Your task to perform on an android device: Open Youtube and go to the subscriptions tab Image 0: 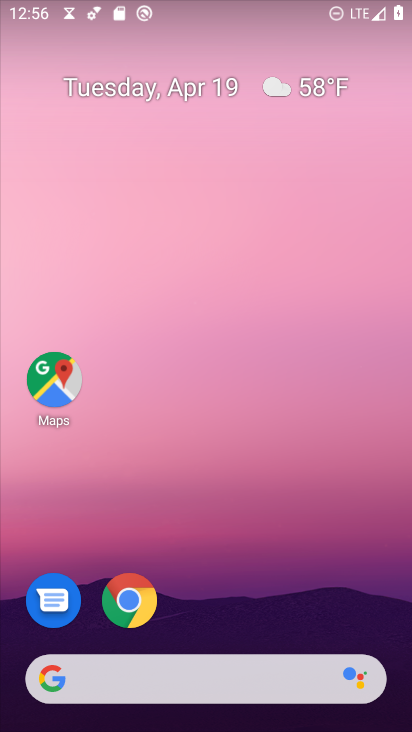
Step 0: drag from (135, 558) to (314, 1)
Your task to perform on an android device: Open Youtube and go to the subscriptions tab Image 1: 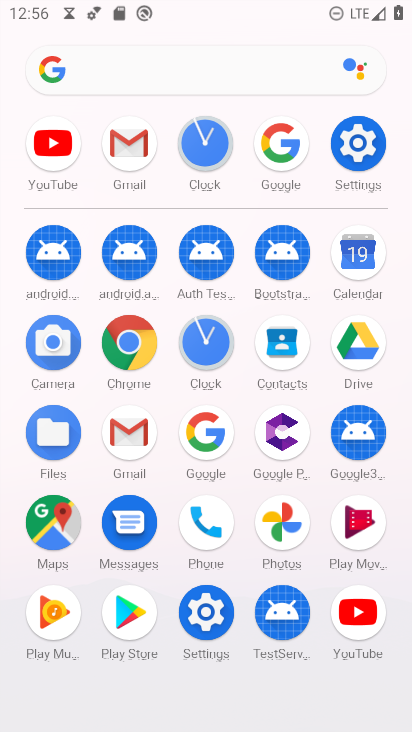
Step 1: click (59, 156)
Your task to perform on an android device: Open Youtube and go to the subscriptions tab Image 2: 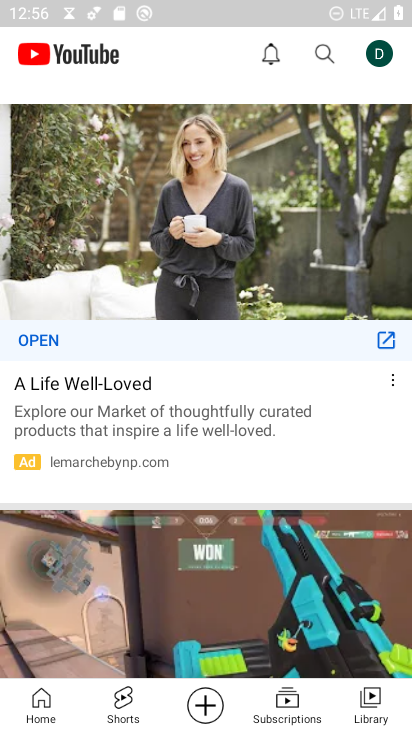
Step 2: click (282, 702)
Your task to perform on an android device: Open Youtube and go to the subscriptions tab Image 3: 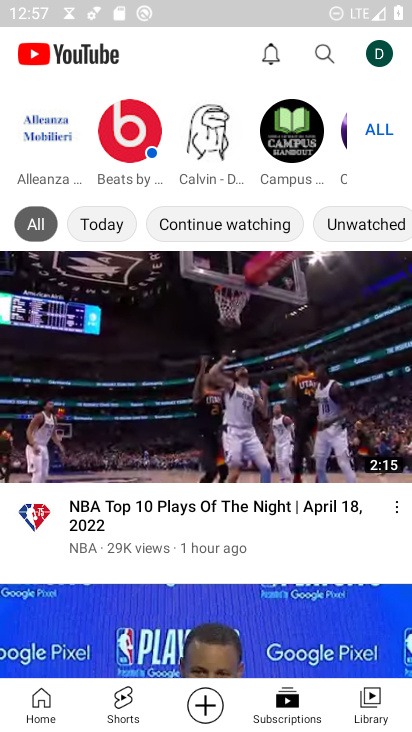
Step 3: task complete